Your task to perform on an android device: turn pop-ups off in chrome Image 0: 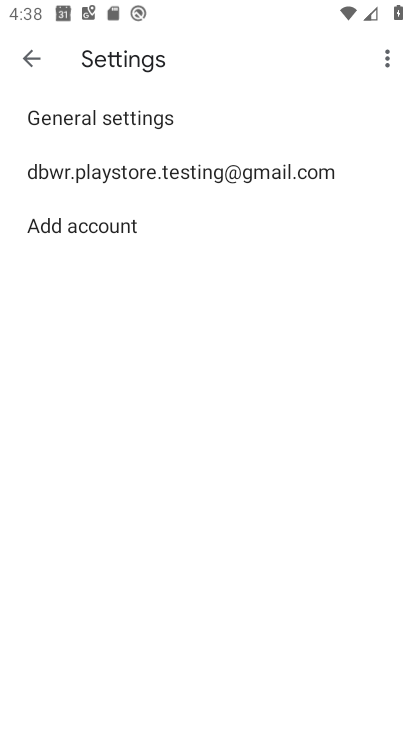
Step 0: press home button
Your task to perform on an android device: turn pop-ups off in chrome Image 1: 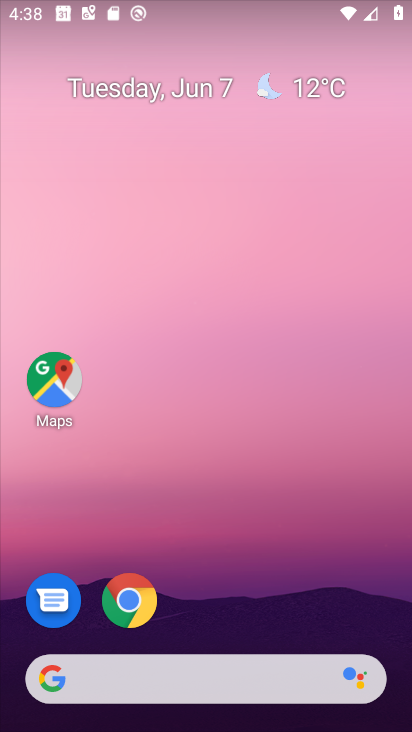
Step 1: click (137, 606)
Your task to perform on an android device: turn pop-ups off in chrome Image 2: 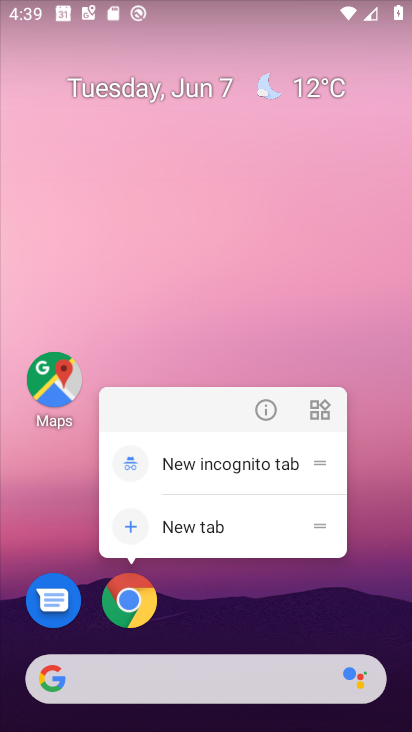
Step 2: click (136, 605)
Your task to perform on an android device: turn pop-ups off in chrome Image 3: 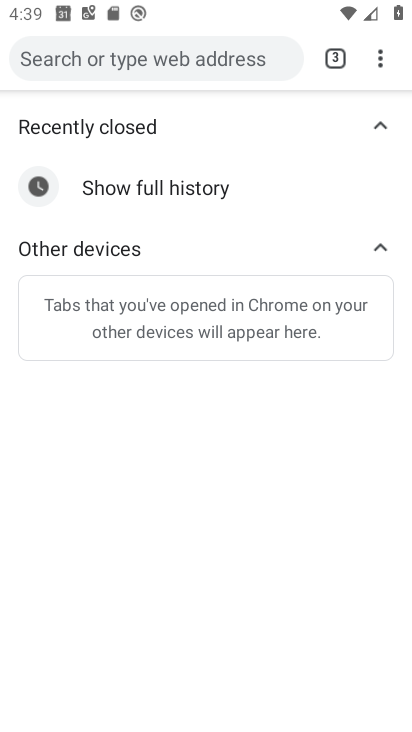
Step 3: drag from (380, 67) to (180, 493)
Your task to perform on an android device: turn pop-ups off in chrome Image 4: 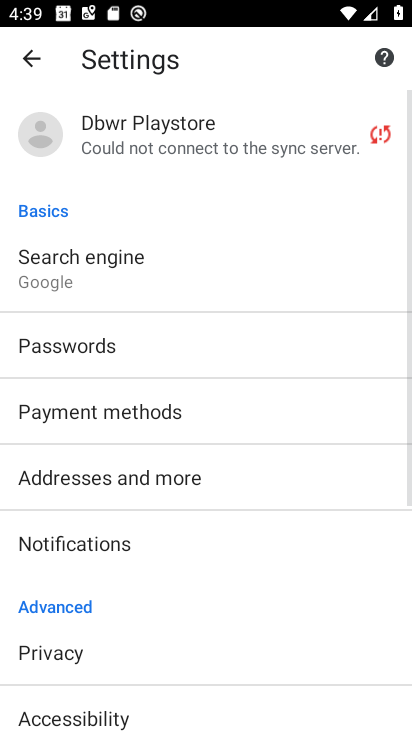
Step 4: drag from (210, 539) to (320, 91)
Your task to perform on an android device: turn pop-ups off in chrome Image 5: 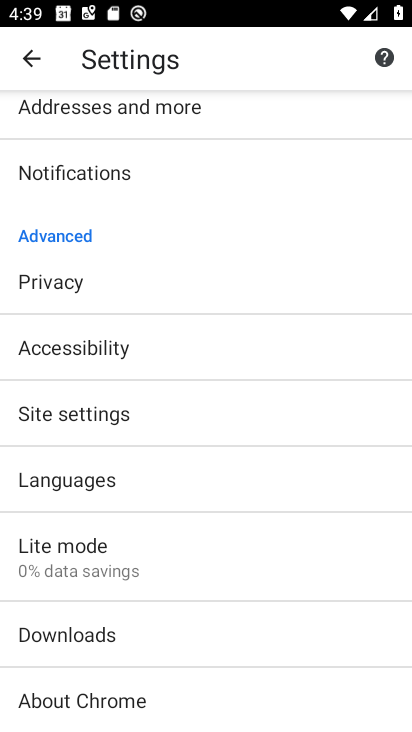
Step 5: click (134, 415)
Your task to perform on an android device: turn pop-ups off in chrome Image 6: 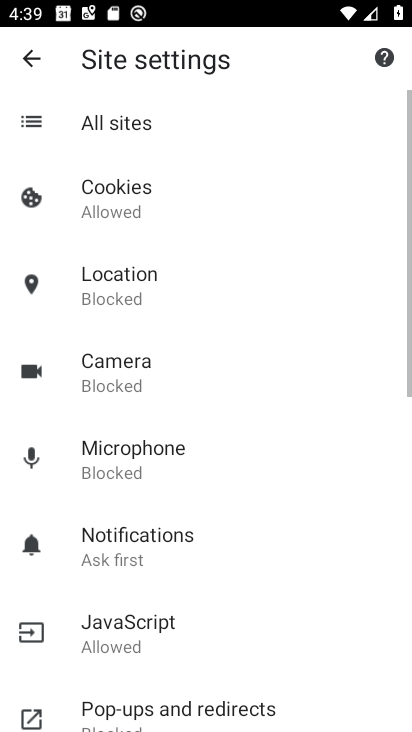
Step 6: drag from (261, 508) to (269, 168)
Your task to perform on an android device: turn pop-ups off in chrome Image 7: 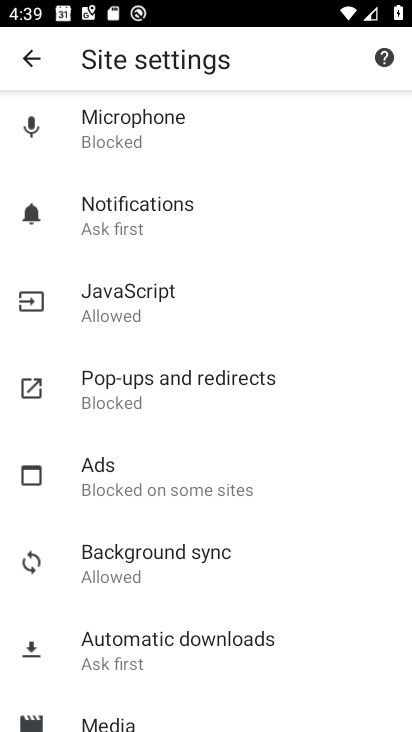
Step 7: click (218, 385)
Your task to perform on an android device: turn pop-ups off in chrome Image 8: 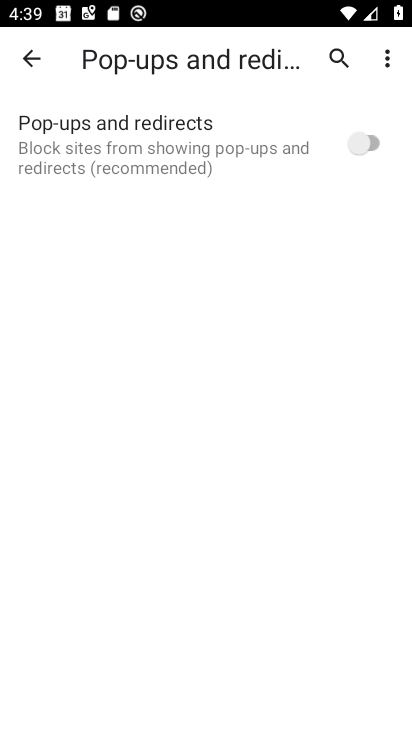
Step 8: task complete